Your task to perform on an android device: Open location settings Image 0: 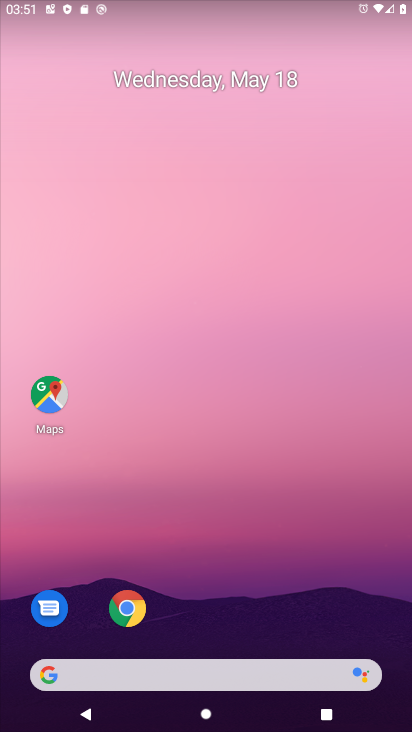
Step 0: drag from (190, 617) to (209, 209)
Your task to perform on an android device: Open location settings Image 1: 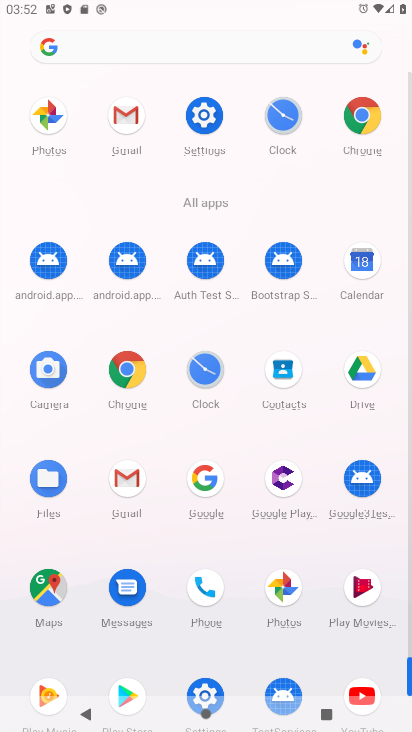
Step 1: click (191, 120)
Your task to perform on an android device: Open location settings Image 2: 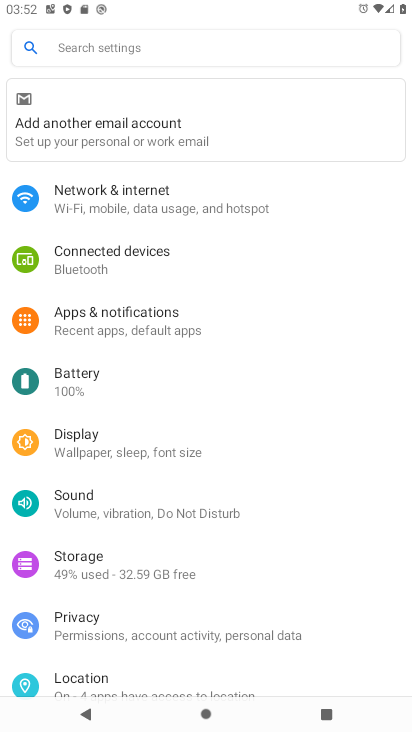
Step 2: click (87, 680)
Your task to perform on an android device: Open location settings Image 3: 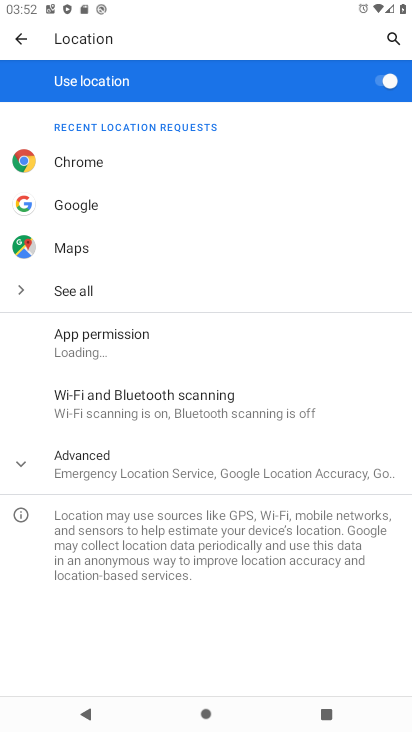
Step 3: task complete